Your task to perform on an android device: toggle translation in the chrome app Image 0: 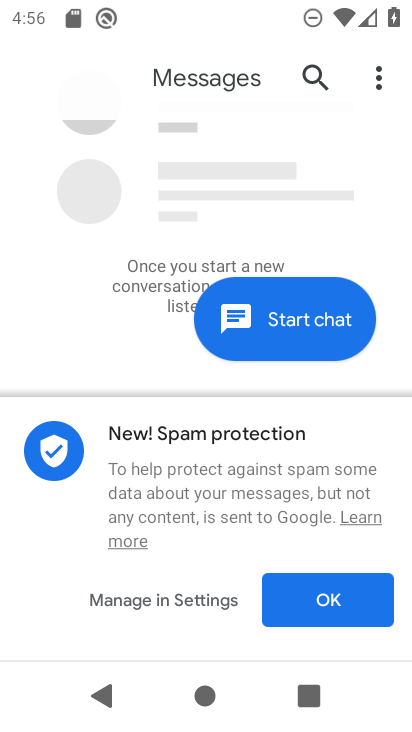
Step 0: press back button
Your task to perform on an android device: toggle translation in the chrome app Image 1: 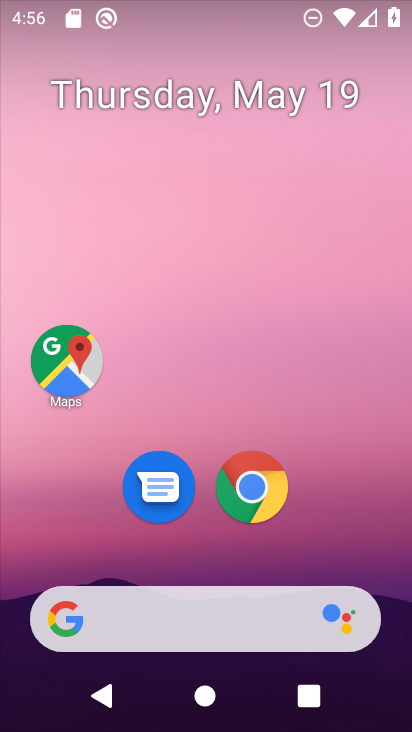
Step 1: click (252, 485)
Your task to perform on an android device: toggle translation in the chrome app Image 2: 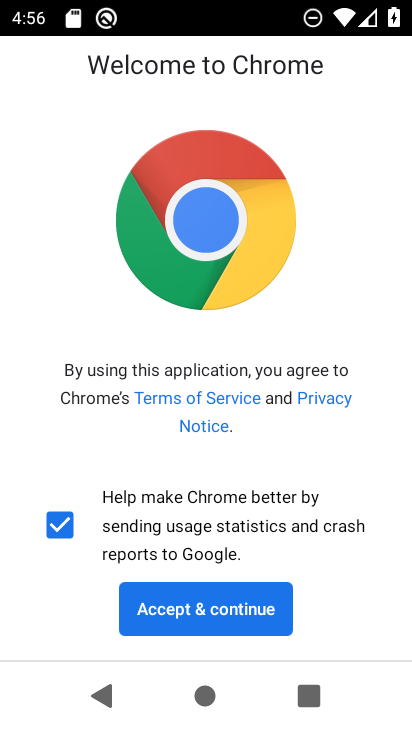
Step 2: click (239, 606)
Your task to perform on an android device: toggle translation in the chrome app Image 3: 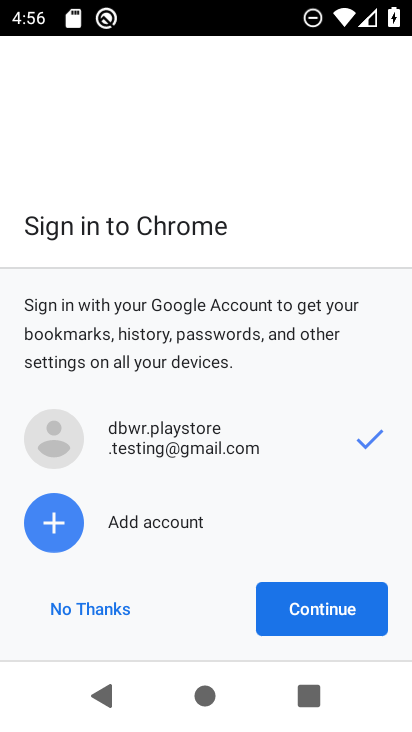
Step 3: click (322, 605)
Your task to perform on an android device: toggle translation in the chrome app Image 4: 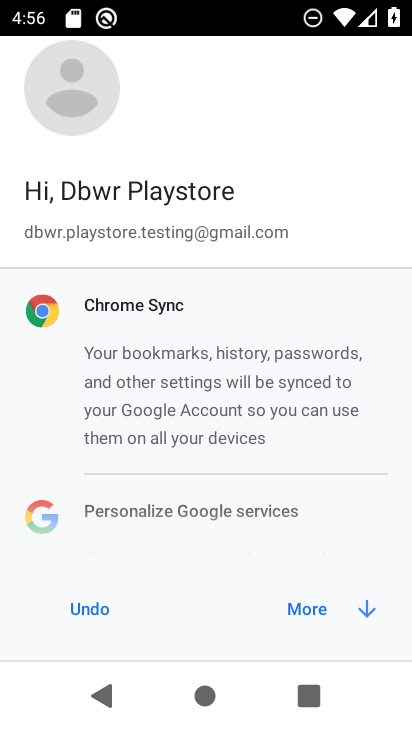
Step 4: click (322, 605)
Your task to perform on an android device: toggle translation in the chrome app Image 5: 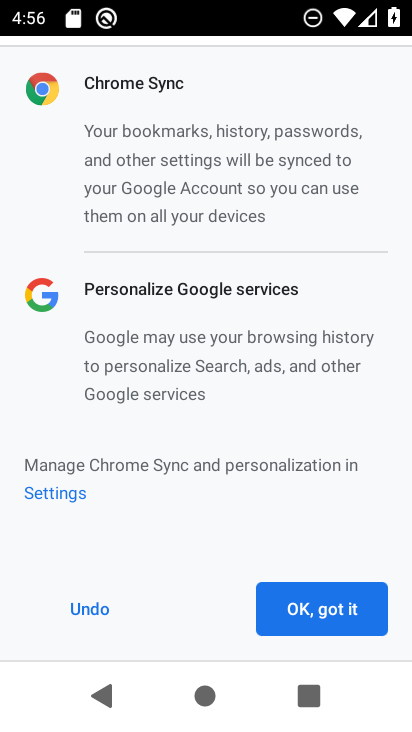
Step 5: click (322, 605)
Your task to perform on an android device: toggle translation in the chrome app Image 6: 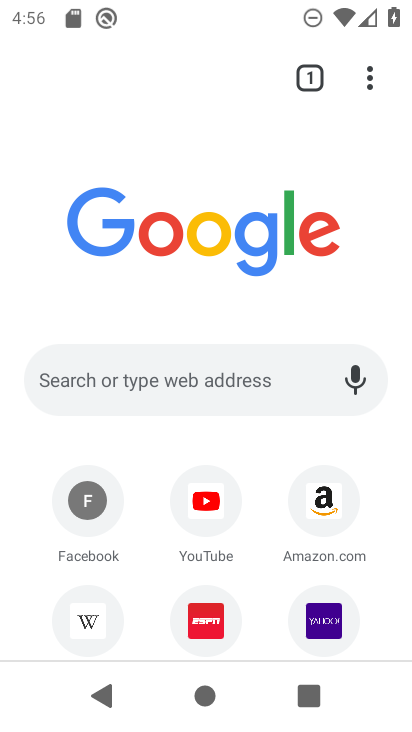
Step 6: click (370, 77)
Your task to perform on an android device: toggle translation in the chrome app Image 7: 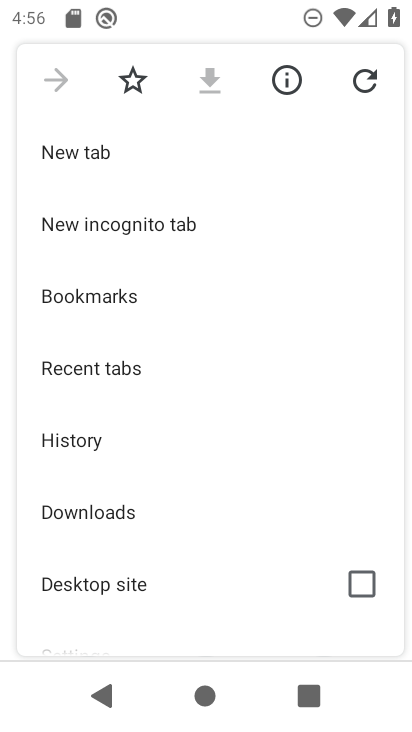
Step 7: drag from (133, 536) to (195, 441)
Your task to perform on an android device: toggle translation in the chrome app Image 8: 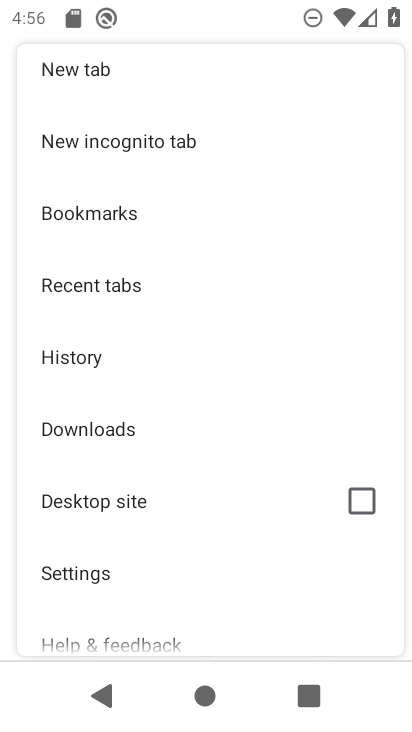
Step 8: drag from (113, 536) to (189, 421)
Your task to perform on an android device: toggle translation in the chrome app Image 9: 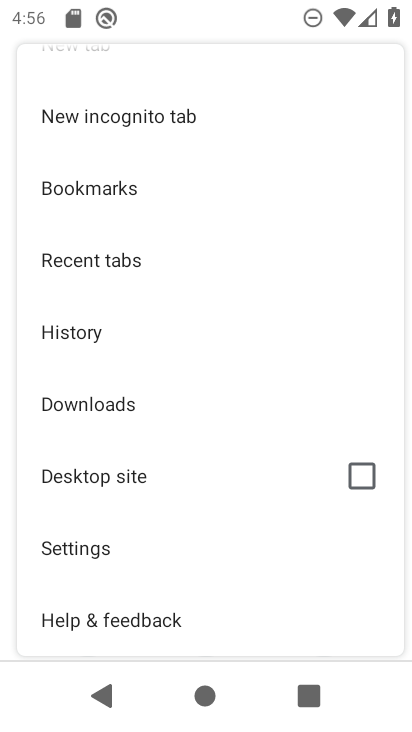
Step 9: click (98, 549)
Your task to perform on an android device: toggle translation in the chrome app Image 10: 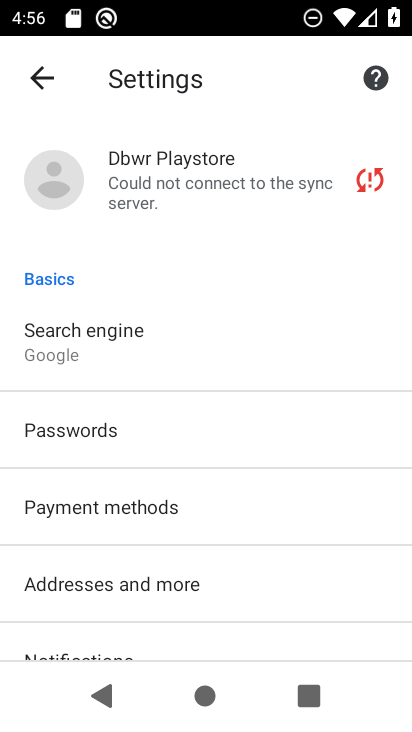
Step 10: drag from (151, 529) to (219, 450)
Your task to perform on an android device: toggle translation in the chrome app Image 11: 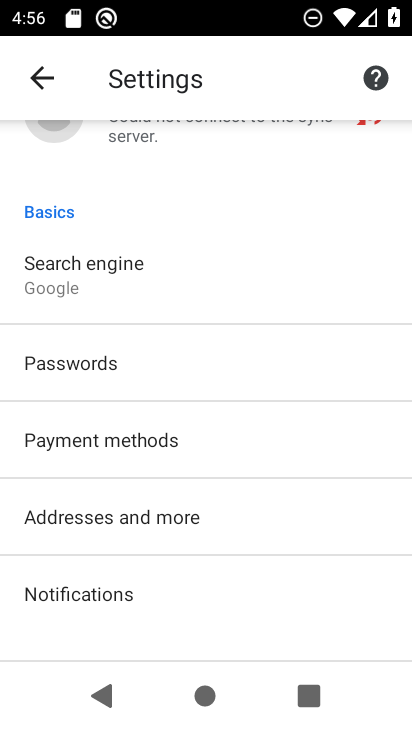
Step 11: drag from (144, 561) to (212, 485)
Your task to perform on an android device: toggle translation in the chrome app Image 12: 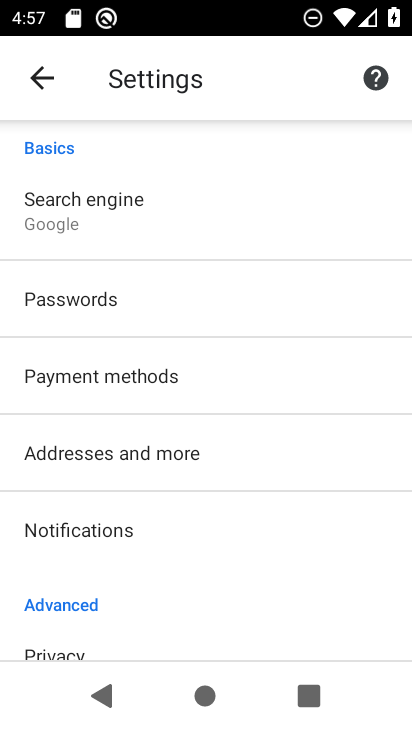
Step 12: drag from (132, 567) to (239, 451)
Your task to perform on an android device: toggle translation in the chrome app Image 13: 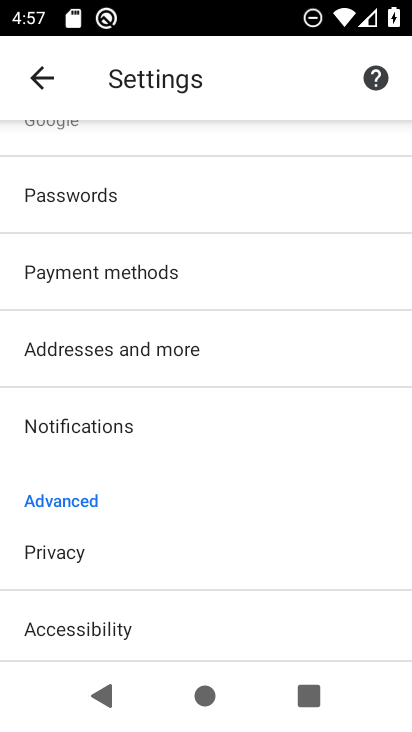
Step 13: drag from (144, 560) to (226, 459)
Your task to perform on an android device: toggle translation in the chrome app Image 14: 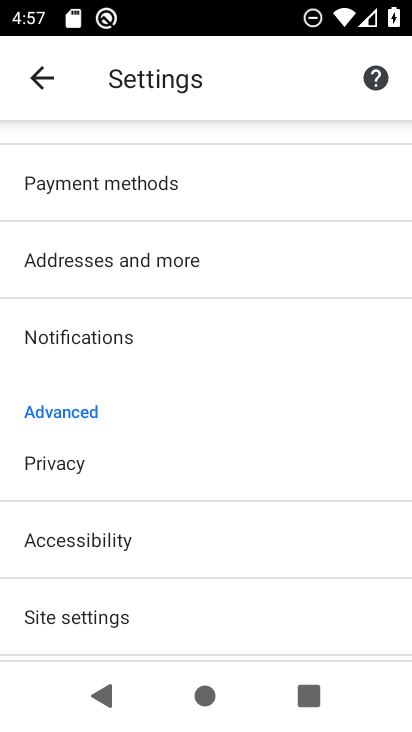
Step 14: drag from (131, 613) to (198, 506)
Your task to perform on an android device: toggle translation in the chrome app Image 15: 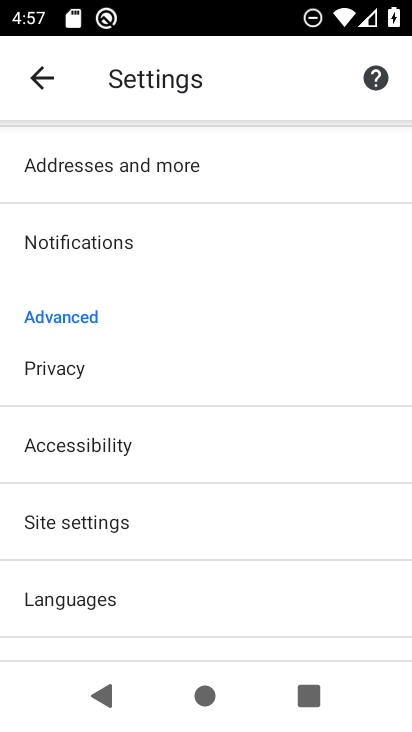
Step 15: click (91, 600)
Your task to perform on an android device: toggle translation in the chrome app Image 16: 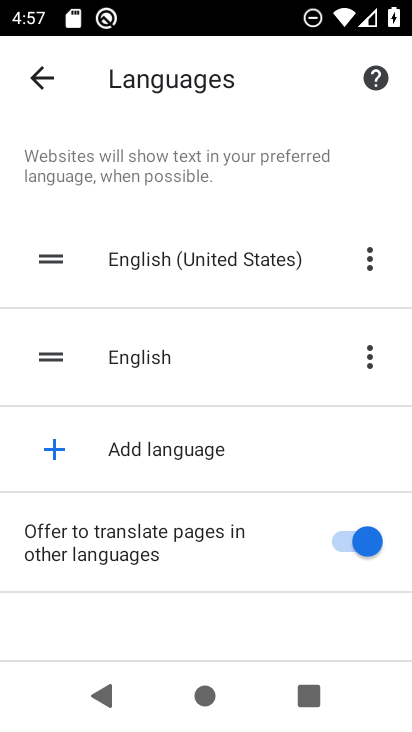
Step 16: click (360, 539)
Your task to perform on an android device: toggle translation in the chrome app Image 17: 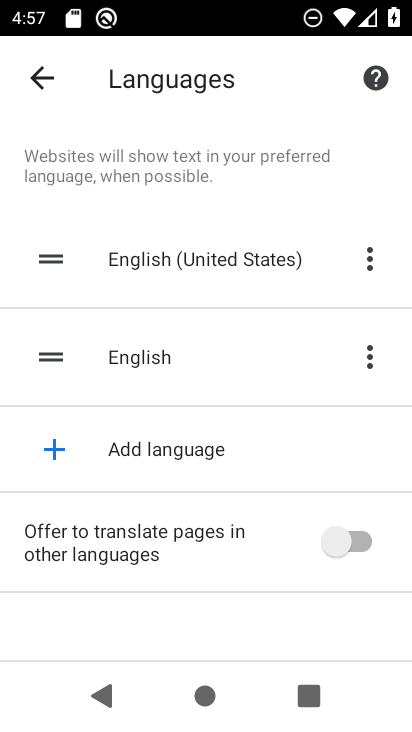
Step 17: task complete